Your task to perform on an android device: Search for logitech g pro on walmart.com, select the first entry, and add it to the cart. Image 0: 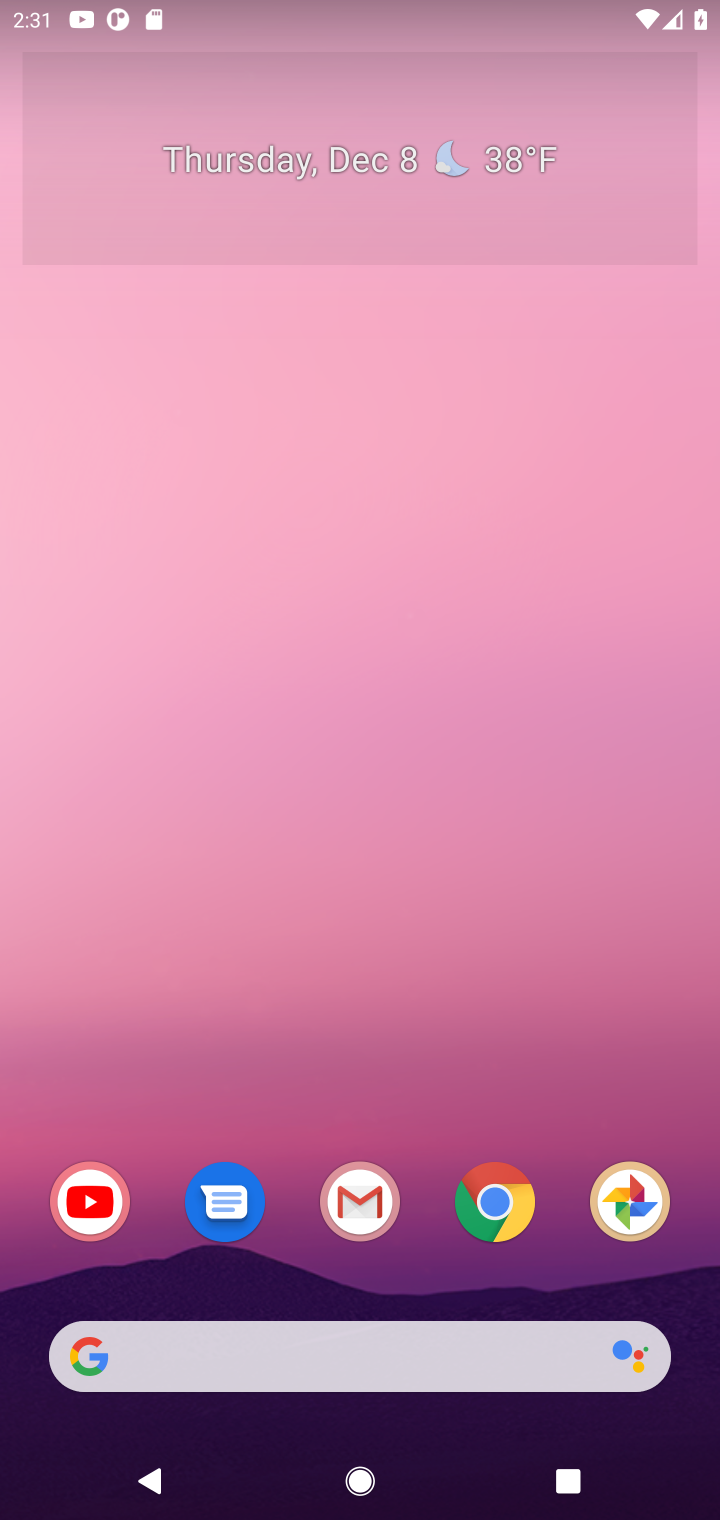
Step 0: click (525, 1191)
Your task to perform on an android device: Search for logitech g pro on walmart.com, select the first entry, and add it to the cart. Image 1: 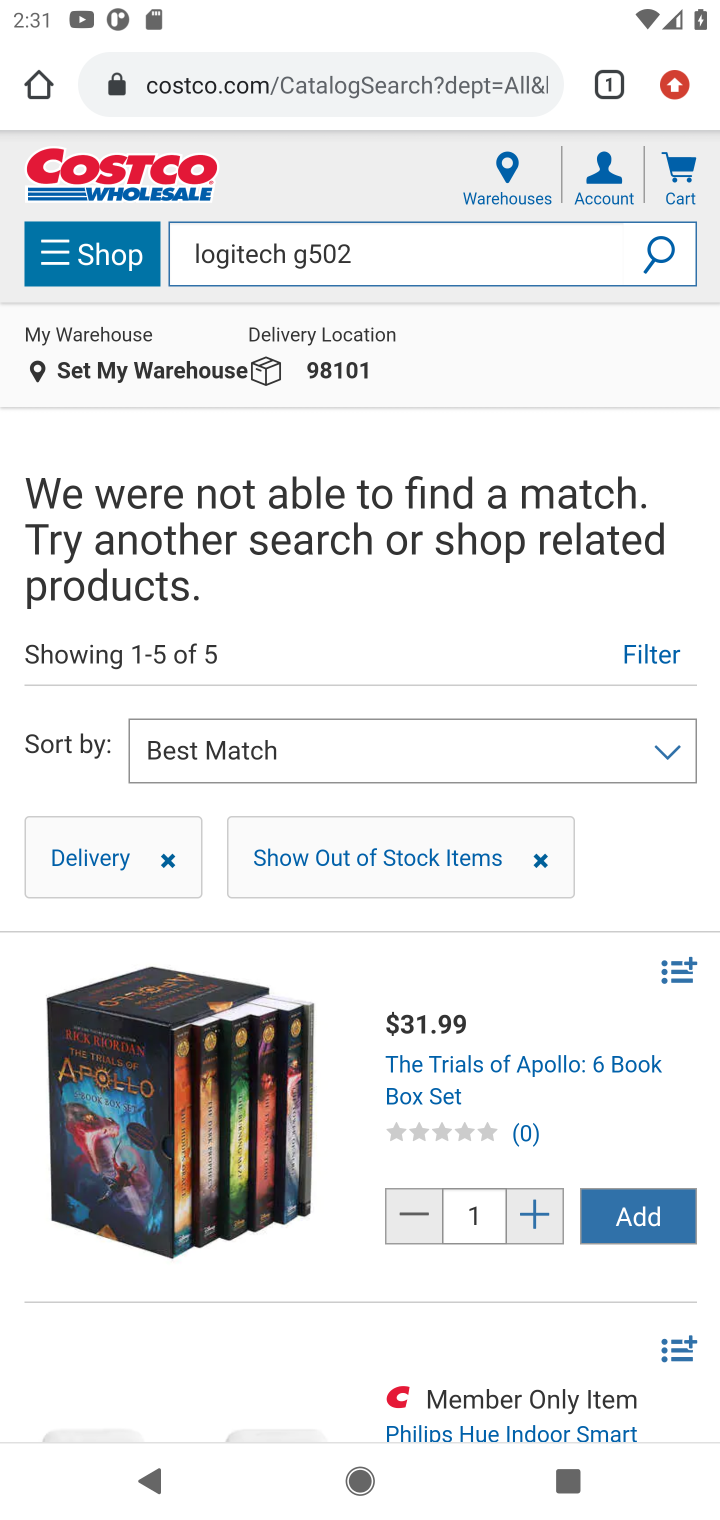
Step 1: click (418, 88)
Your task to perform on an android device: Search for logitech g pro on walmart.com, select the first entry, and add it to the cart. Image 2: 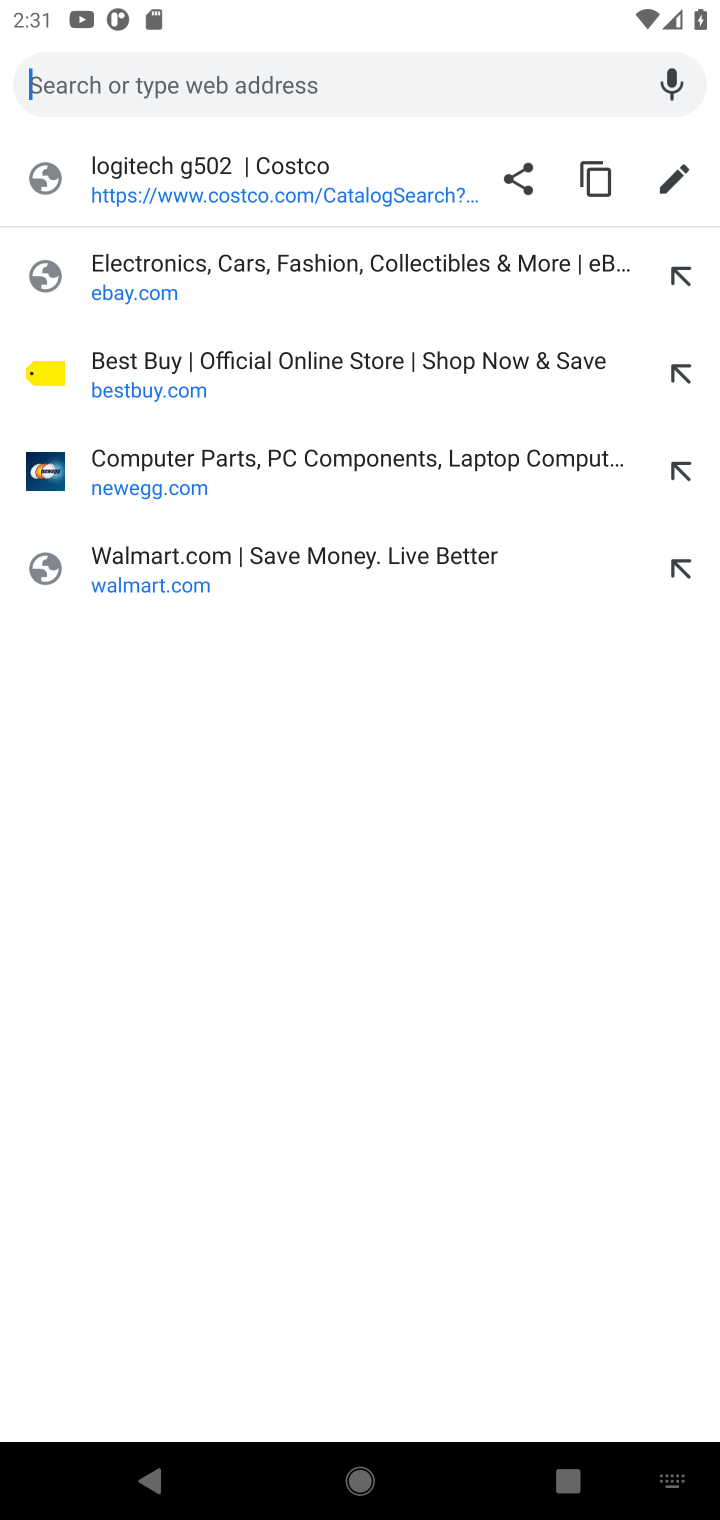
Step 2: click (200, 552)
Your task to perform on an android device: Search for logitech g pro on walmart.com, select the first entry, and add it to the cart. Image 3: 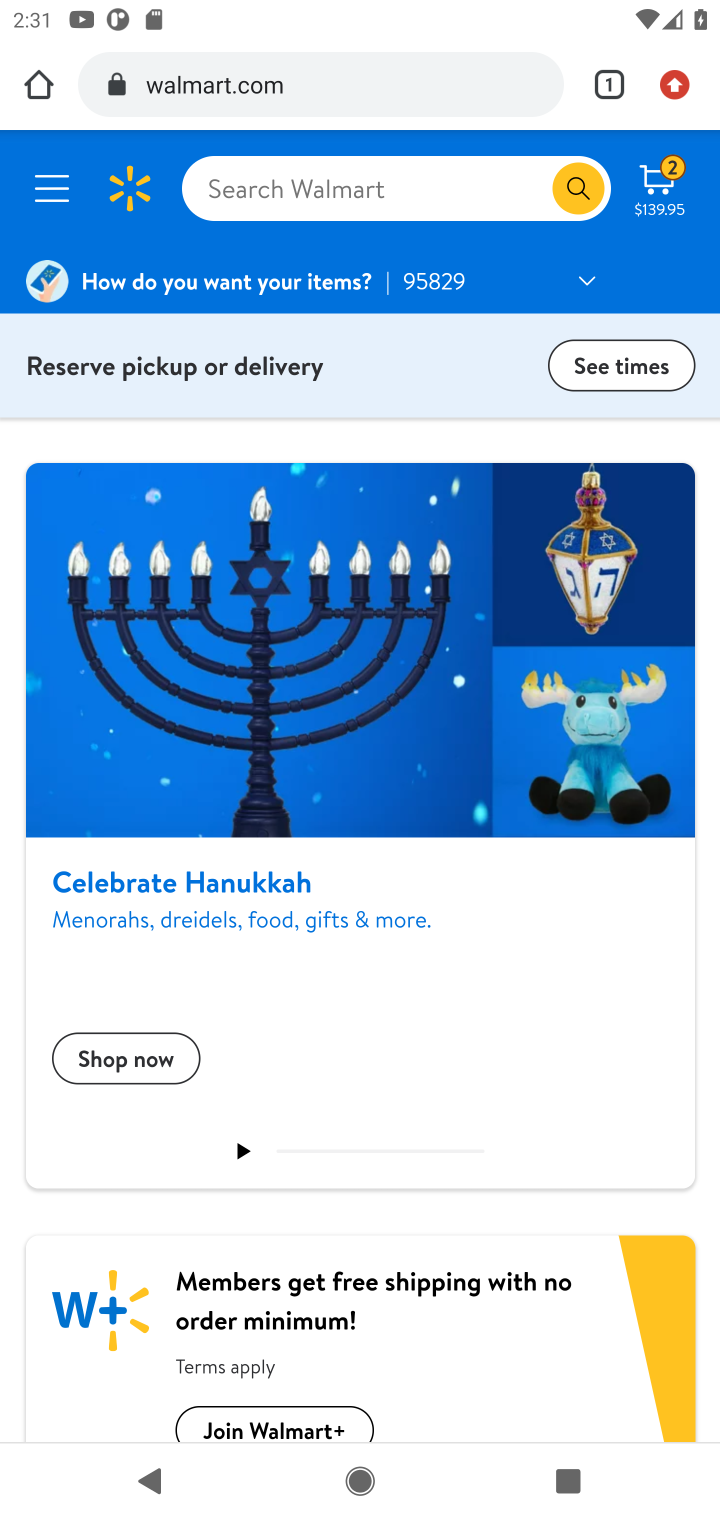
Step 3: click (420, 183)
Your task to perform on an android device: Search for logitech g pro on walmart.com, select the first entry, and add it to the cart. Image 4: 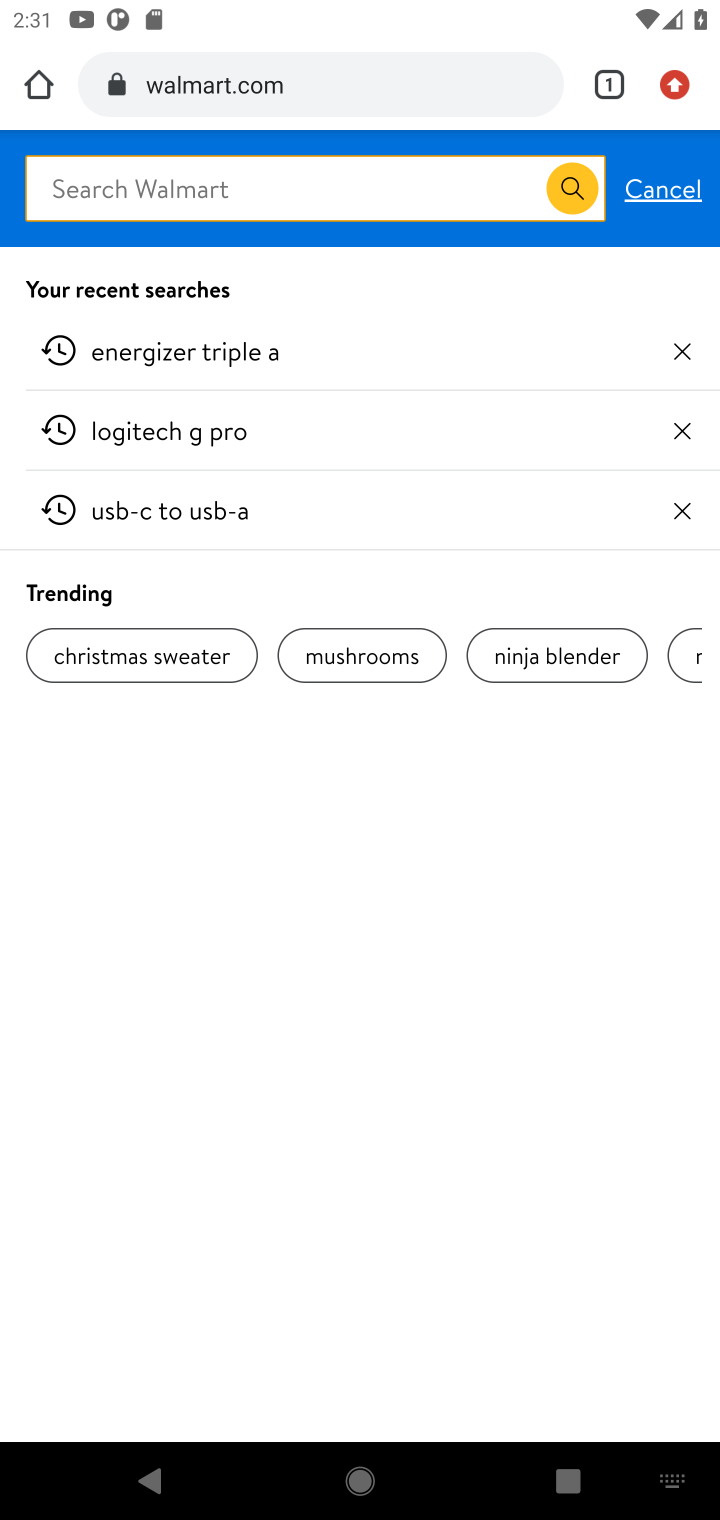
Step 4: type "logitech g pro"
Your task to perform on an android device: Search for logitech g pro on walmart.com, select the first entry, and add it to the cart. Image 5: 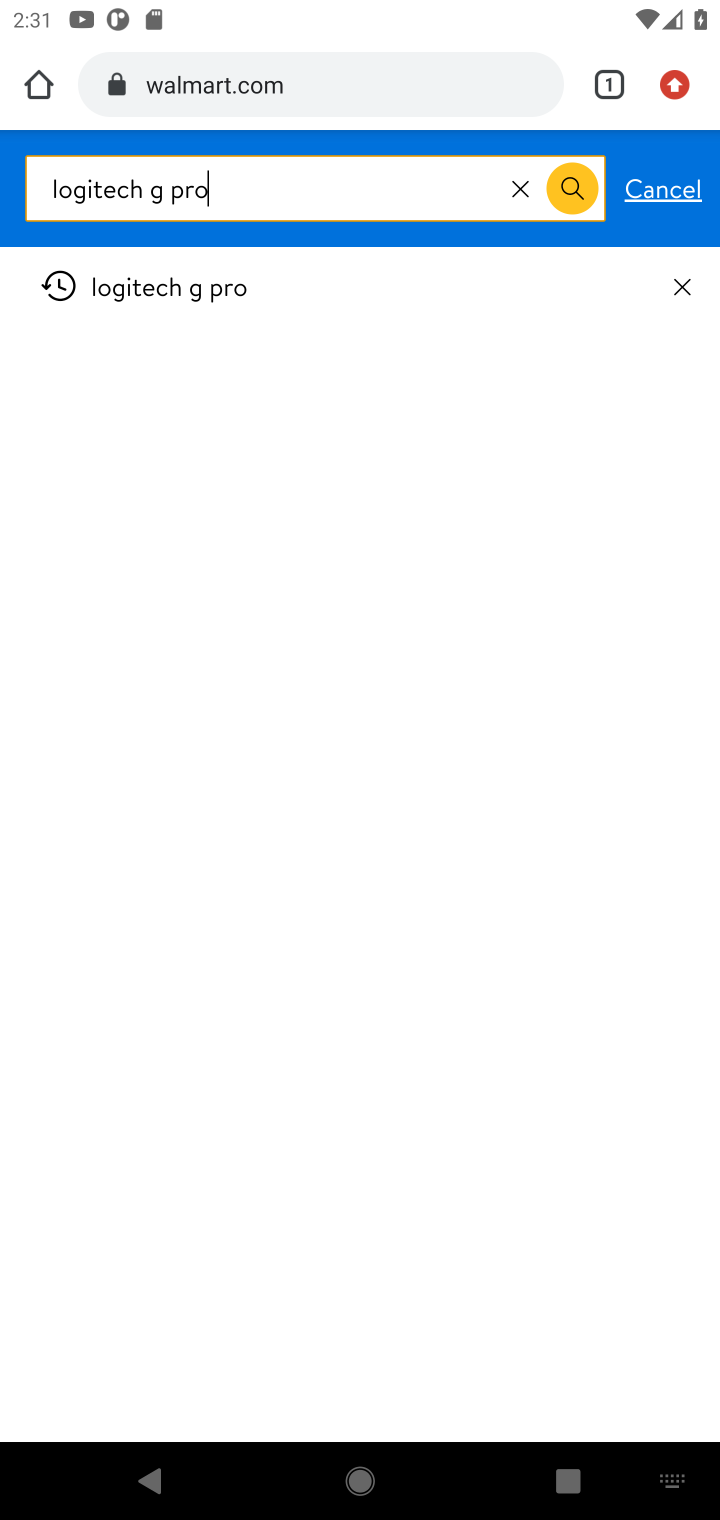
Step 5: press enter
Your task to perform on an android device: Search for logitech g pro on walmart.com, select the first entry, and add it to the cart. Image 6: 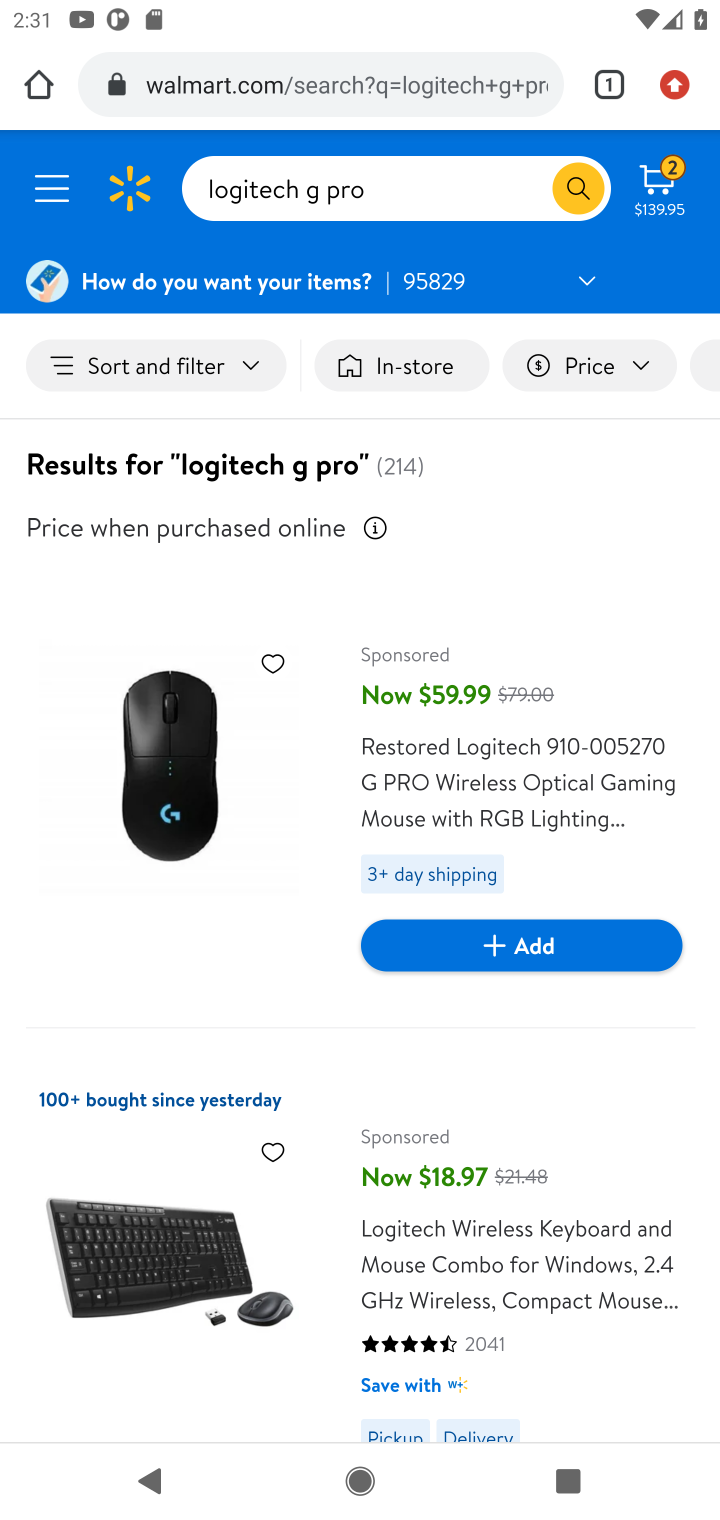
Step 6: drag from (570, 1288) to (629, 498)
Your task to perform on an android device: Search for logitech g pro on walmart.com, select the first entry, and add it to the cart. Image 7: 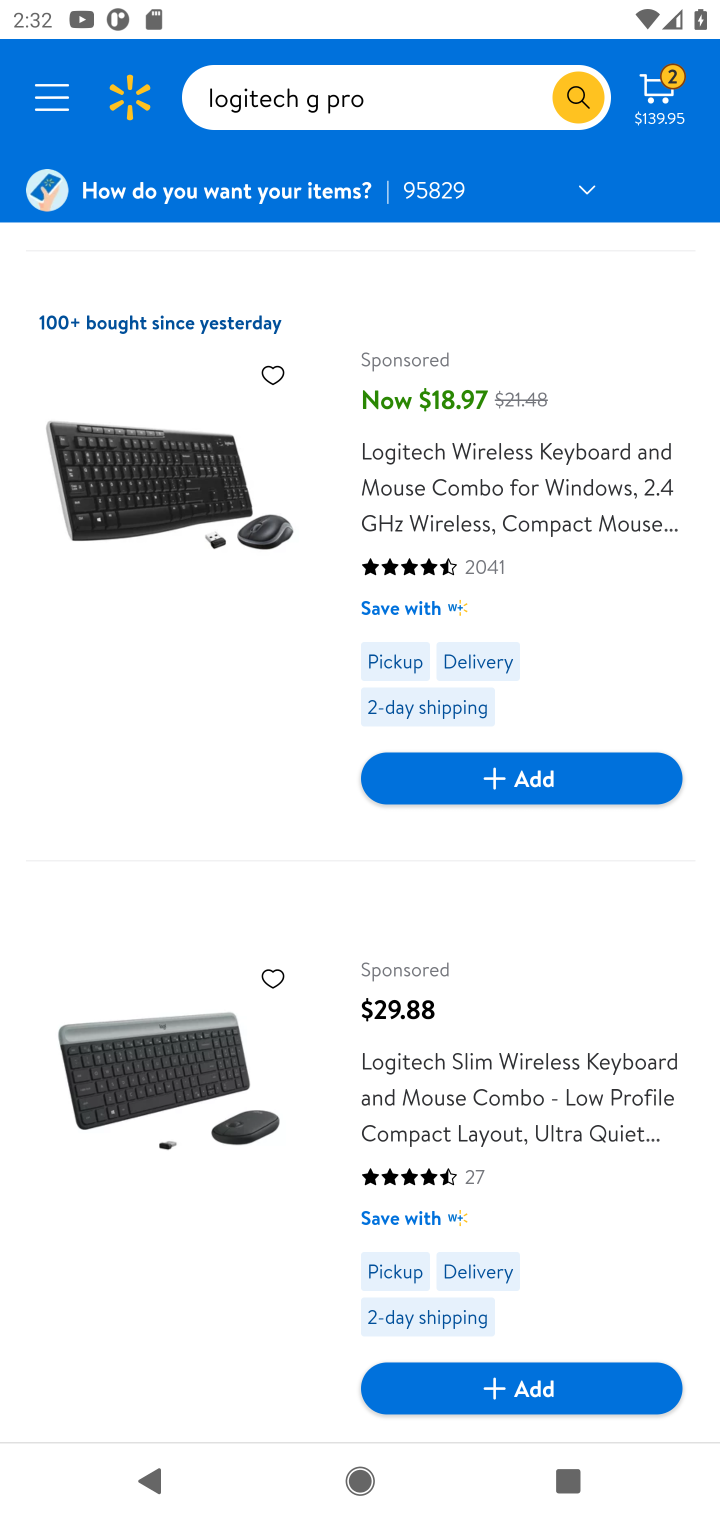
Step 7: drag from (602, 1130) to (696, 529)
Your task to perform on an android device: Search for logitech g pro on walmart.com, select the first entry, and add it to the cart. Image 8: 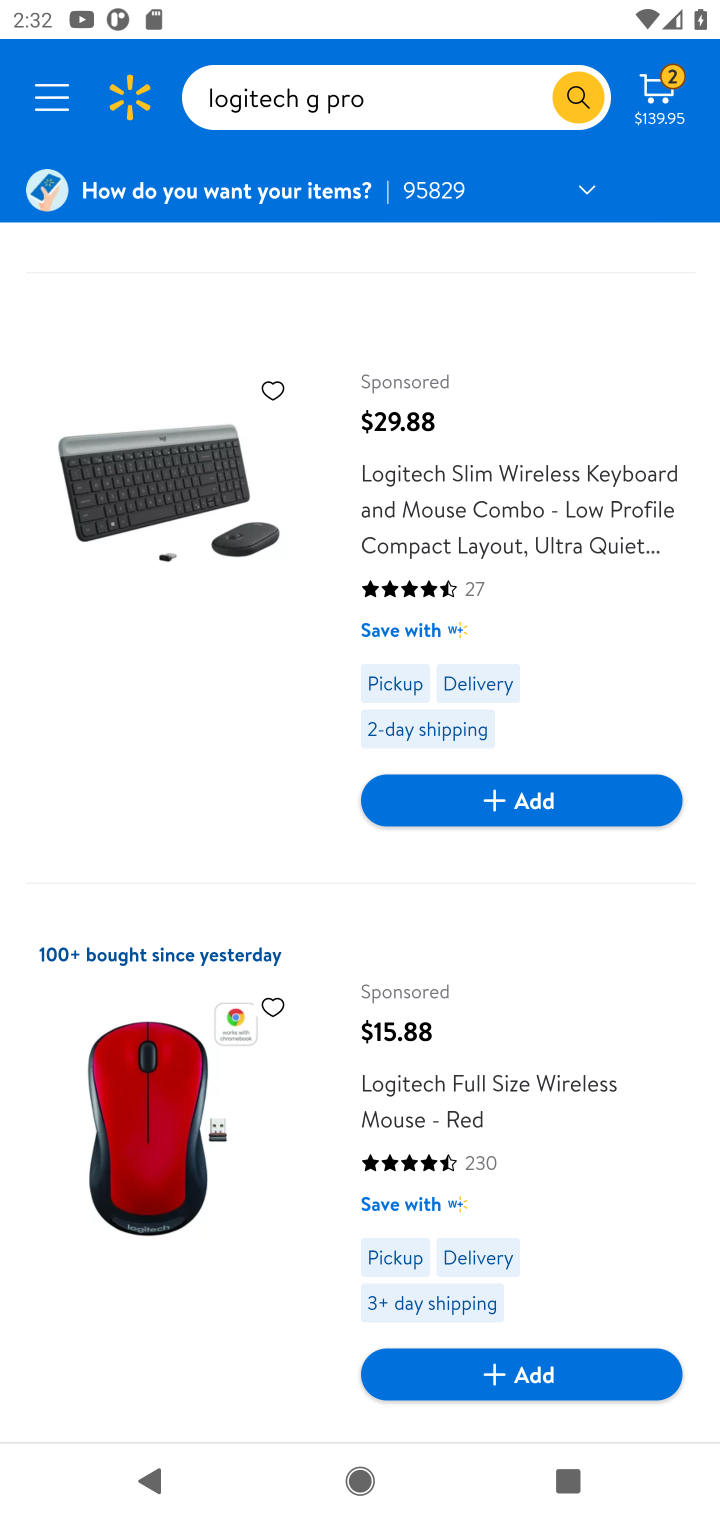
Step 8: drag from (585, 1108) to (577, 501)
Your task to perform on an android device: Search for logitech g pro on walmart.com, select the first entry, and add it to the cart. Image 9: 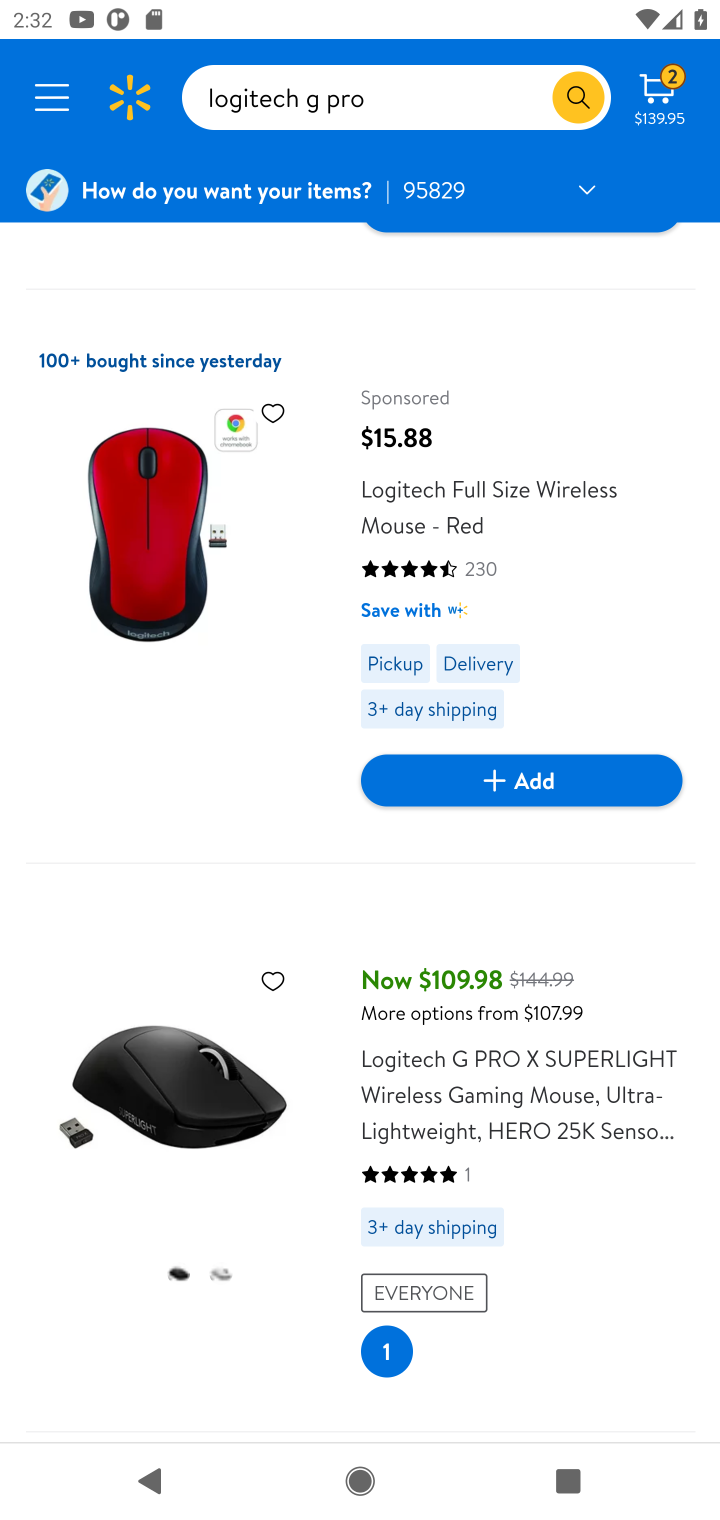
Step 9: click (123, 1104)
Your task to perform on an android device: Search for logitech g pro on walmart.com, select the first entry, and add it to the cart. Image 10: 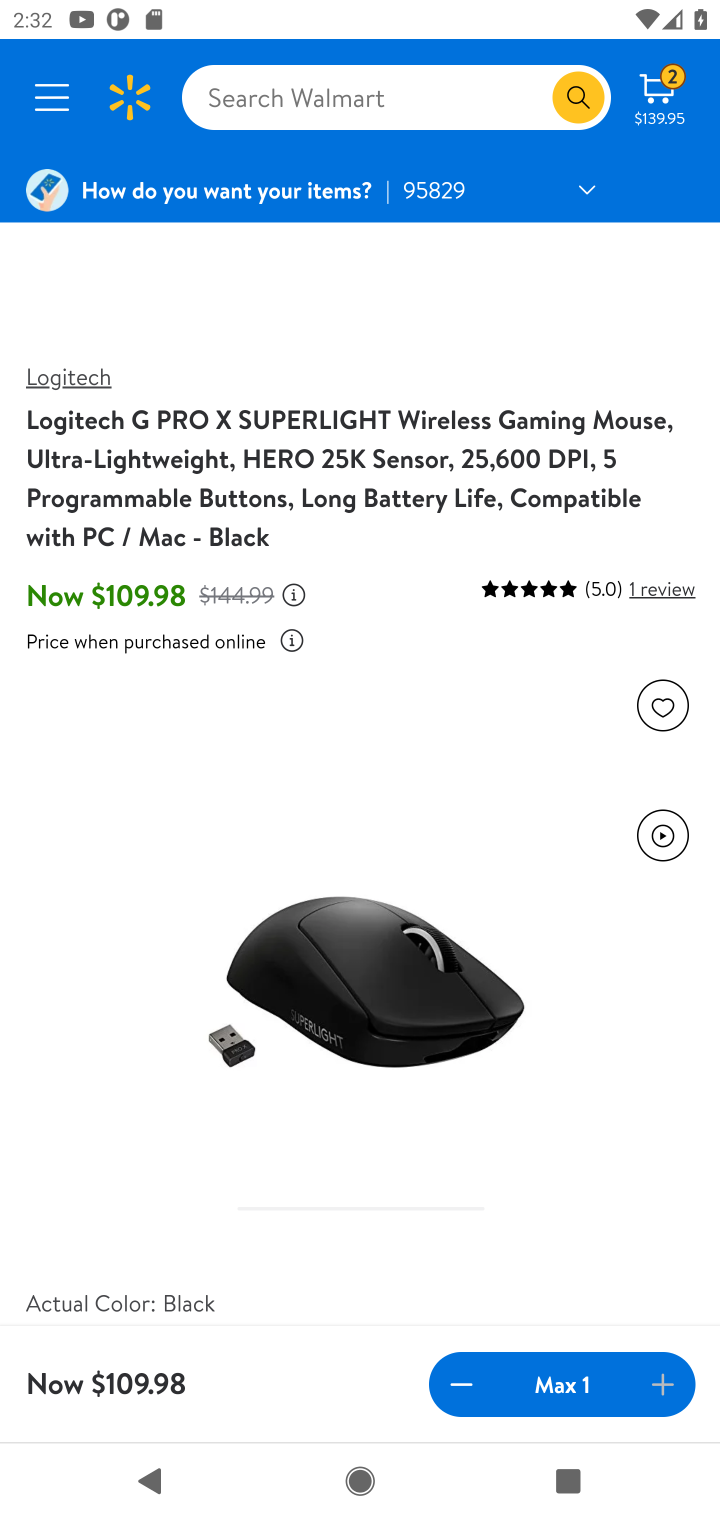
Step 10: drag from (501, 1060) to (620, 196)
Your task to perform on an android device: Search for logitech g pro on walmart.com, select the first entry, and add it to the cart. Image 11: 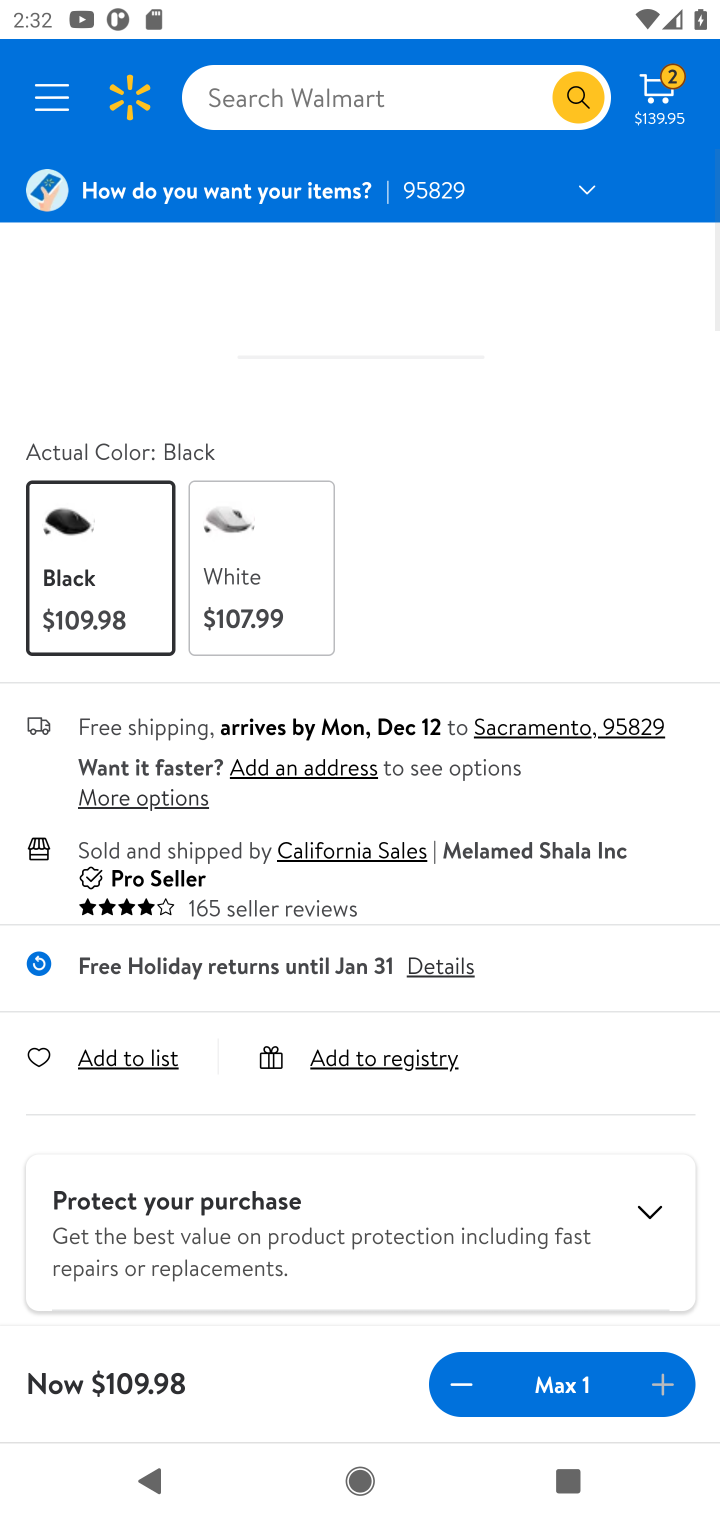
Step 11: drag from (616, 1111) to (631, 245)
Your task to perform on an android device: Search for logitech g pro on walmart.com, select the first entry, and add it to the cart. Image 12: 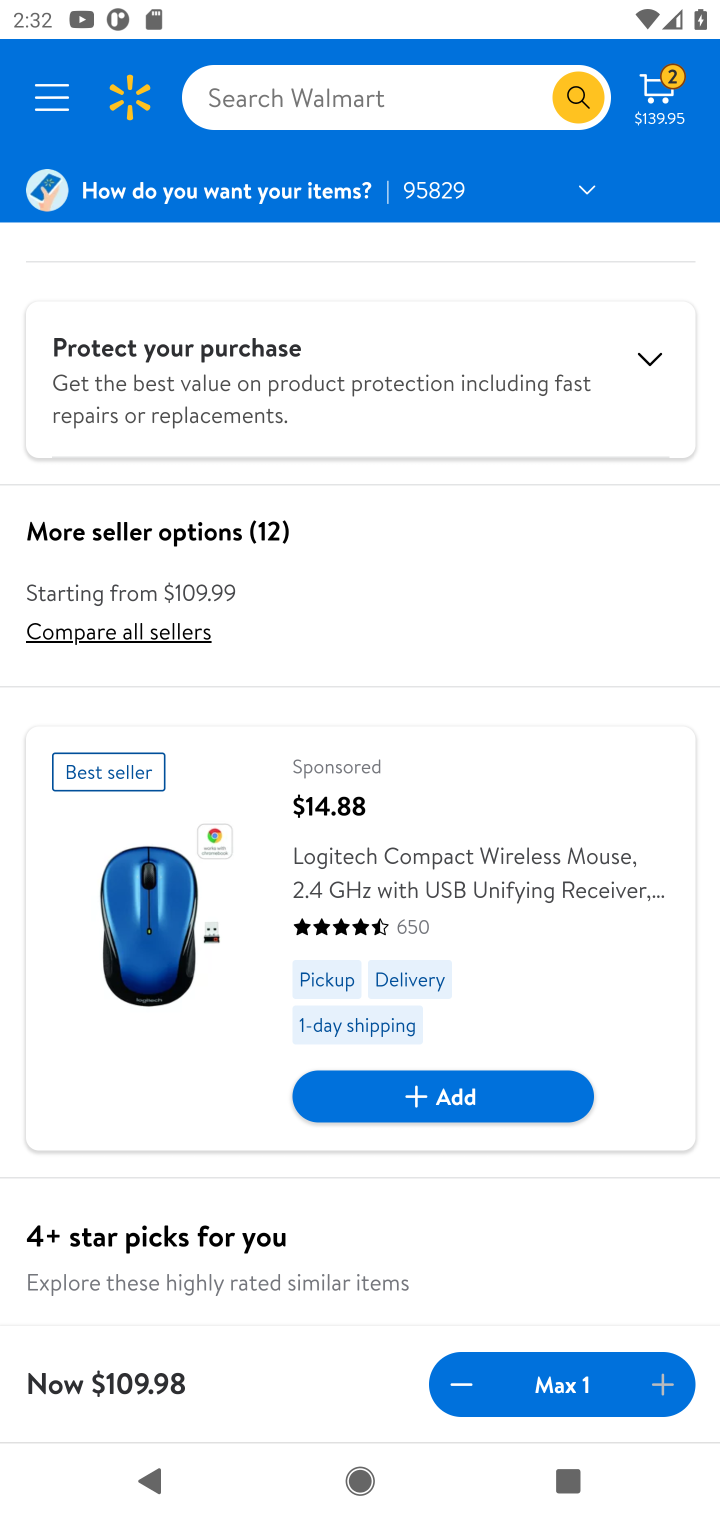
Step 12: press back button
Your task to perform on an android device: Search for logitech g pro on walmart.com, select the first entry, and add it to the cart. Image 13: 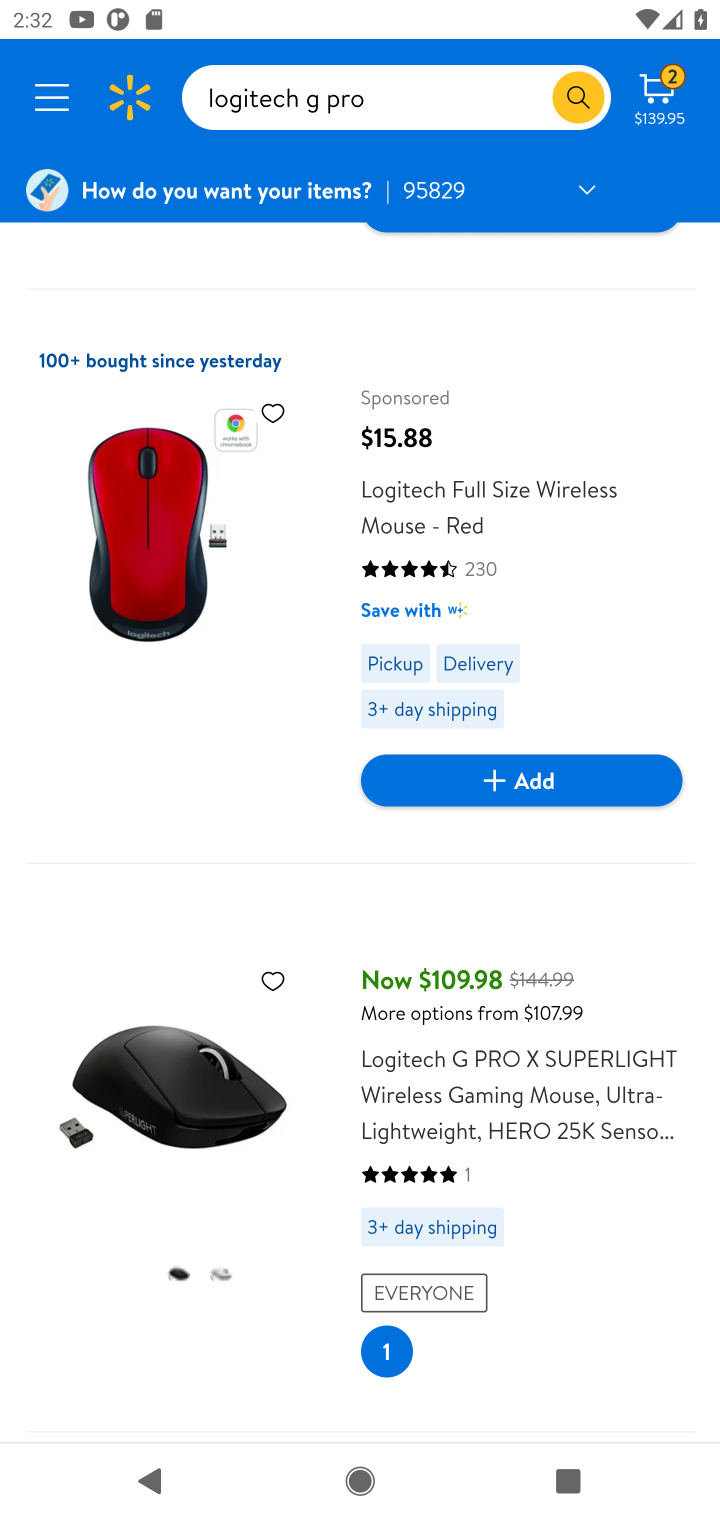
Step 13: drag from (560, 1076) to (553, 412)
Your task to perform on an android device: Search for logitech g pro on walmart.com, select the first entry, and add it to the cart. Image 14: 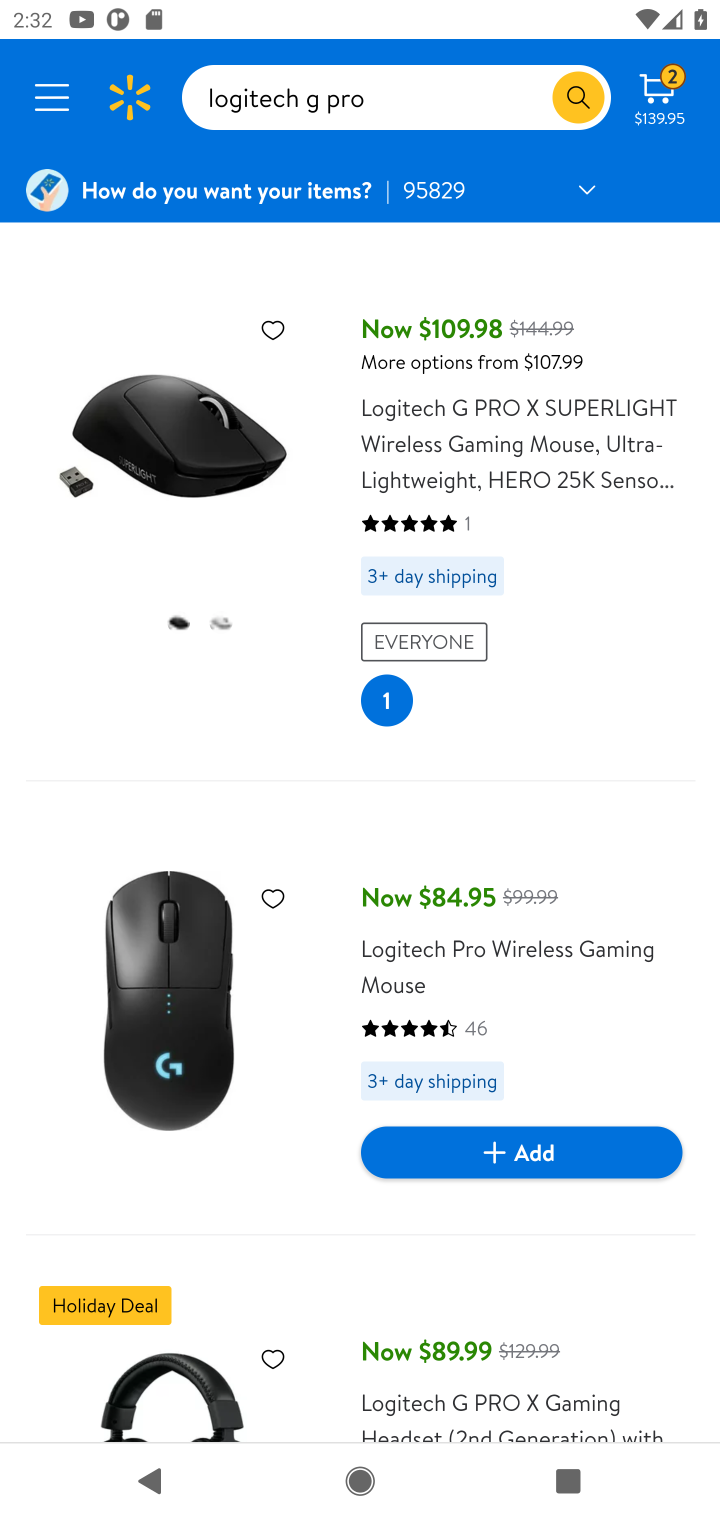
Step 14: drag from (601, 1275) to (628, 787)
Your task to perform on an android device: Search for logitech g pro on walmart.com, select the first entry, and add it to the cart. Image 15: 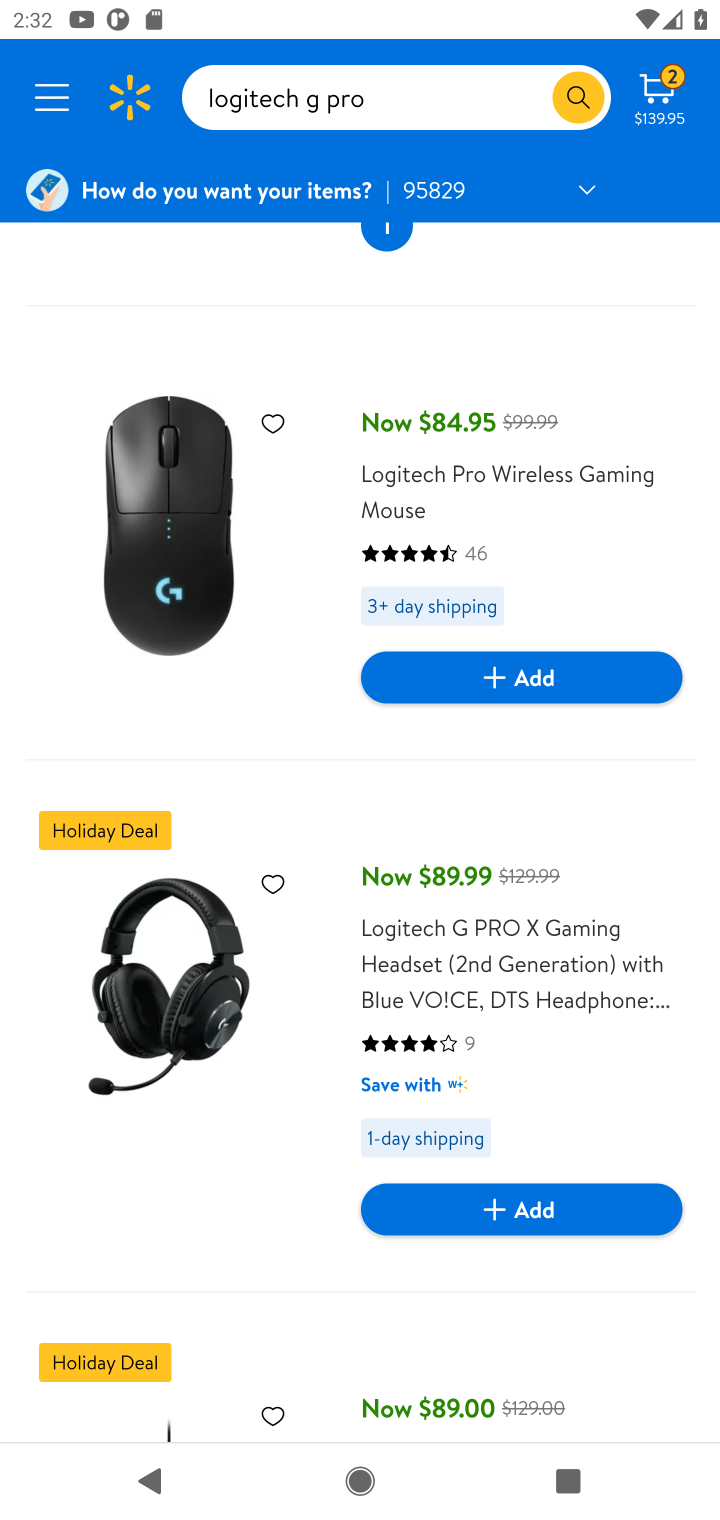
Step 15: click (157, 969)
Your task to perform on an android device: Search for logitech g pro on walmart.com, select the first entry, and add it to the cart. Image 16: 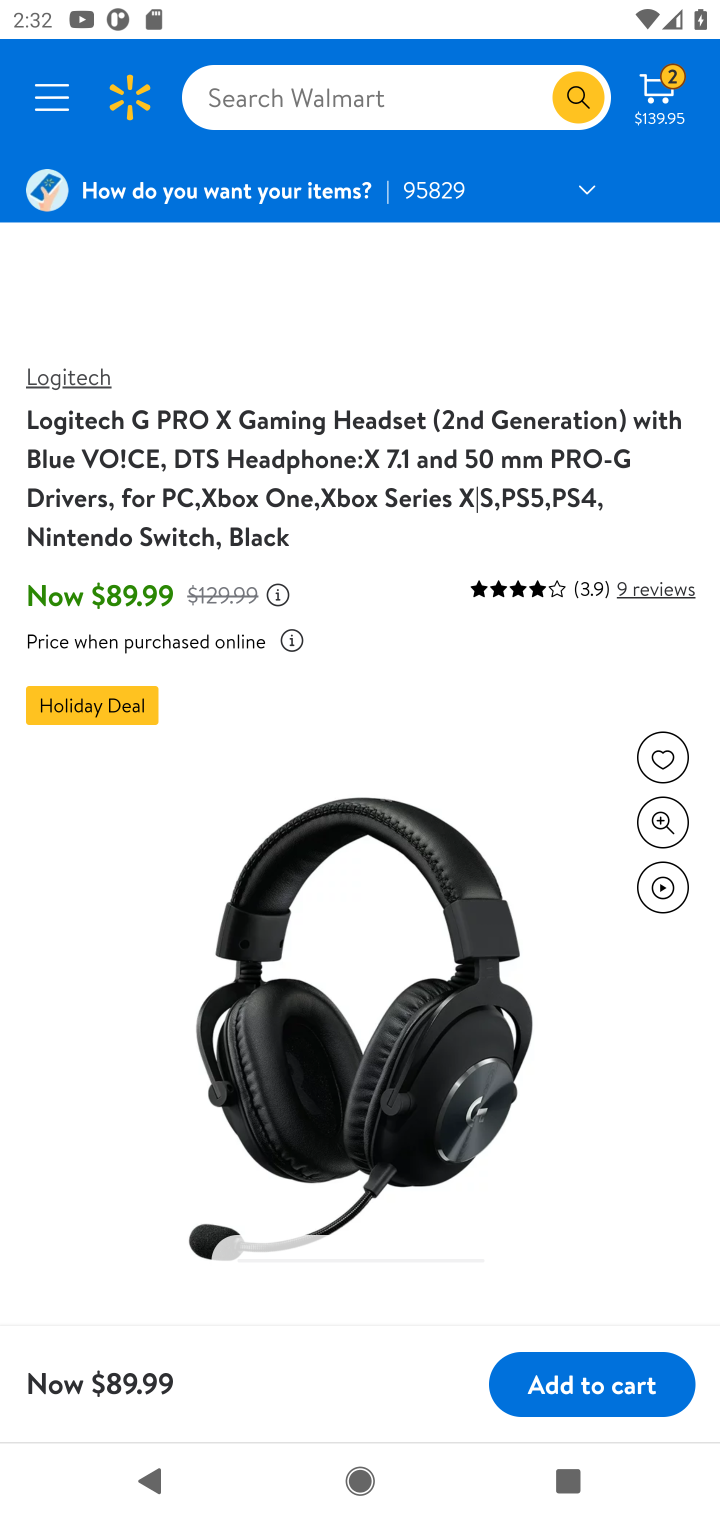
Step 16: click (579, 1395)
Your task to perform on an android device: Search for logitech g pro on walmart.com, select the first entry, and add it to the cart. Image 17: 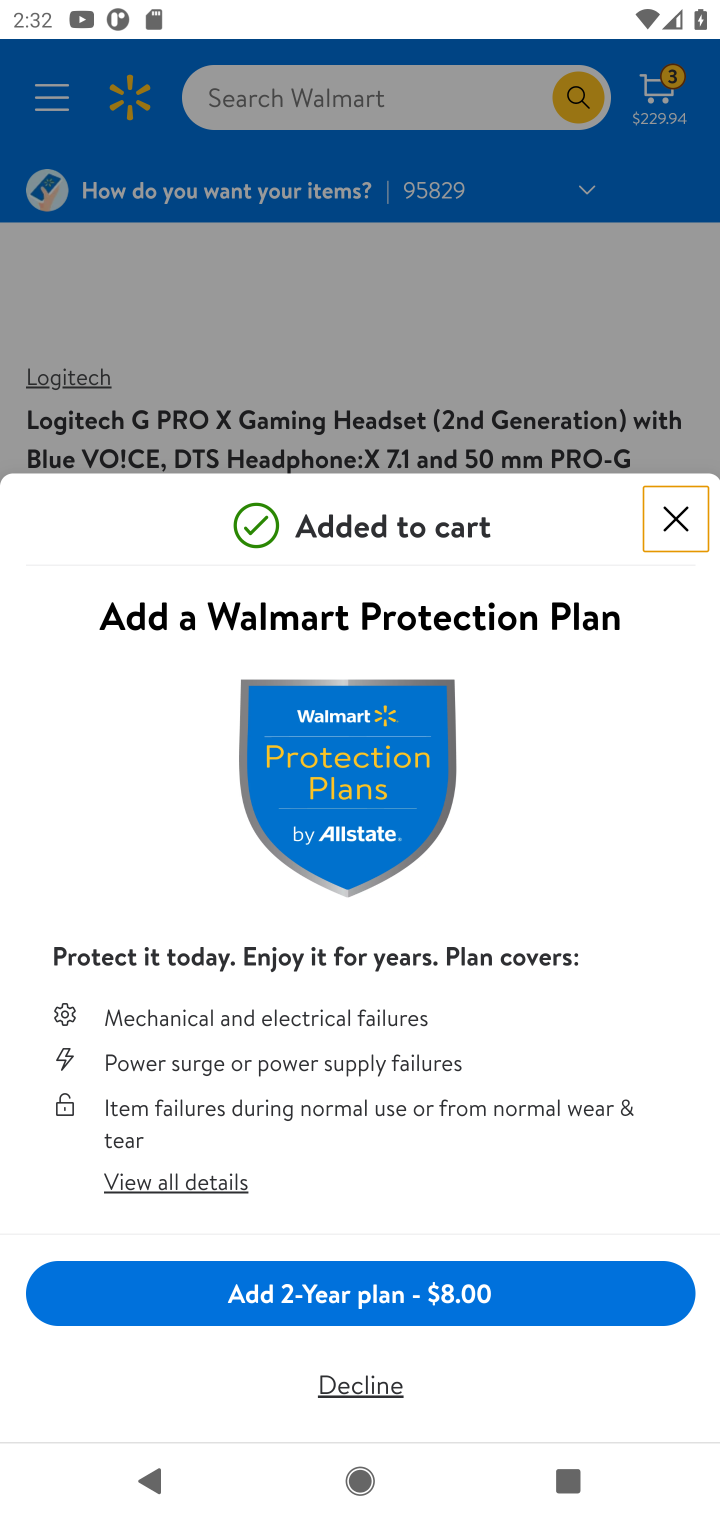
Step 17: task complete